Your task to perform on an android device: turn on the 24-hour format for clock Image 0: 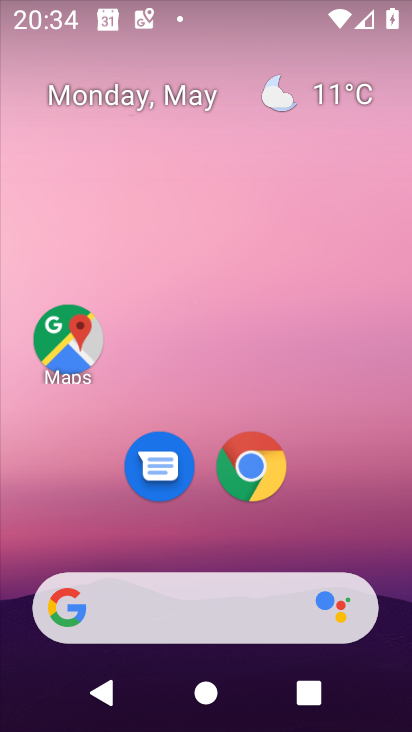
Step 0: drag from (312, 444) to (348, 182)
Your task to perform on an android device: turn on the 24-hour format for clock Image 1: 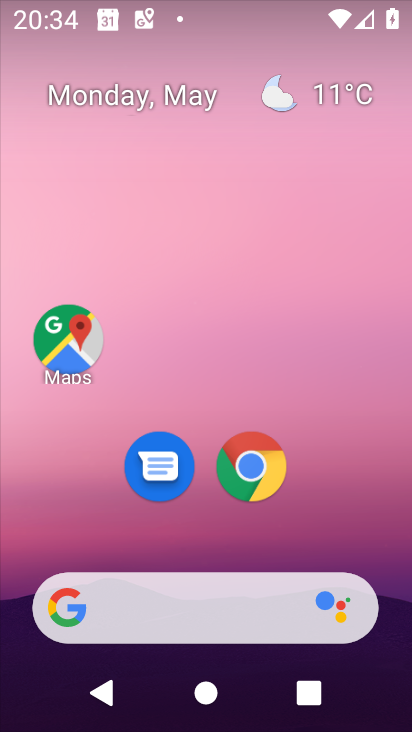
Step 1: drag from (275, 525) to (347, 246)
Your task to perform on an android device: turn on the 24-hour format for clock Image 2: 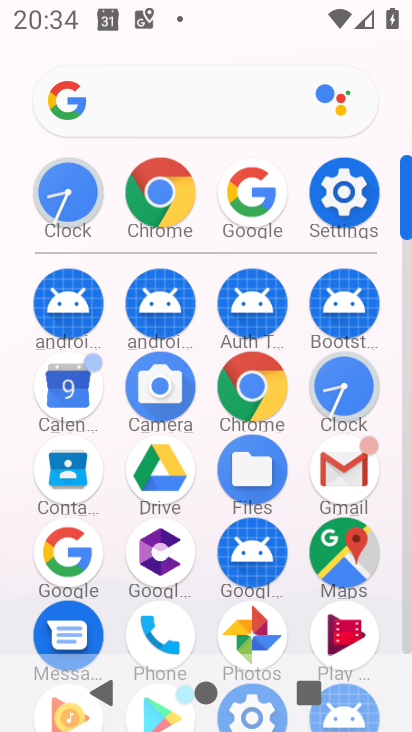
Step 2: click (339, 385)
Your task to perform on an android device: turn on the 24-hour format for clock Image 3: 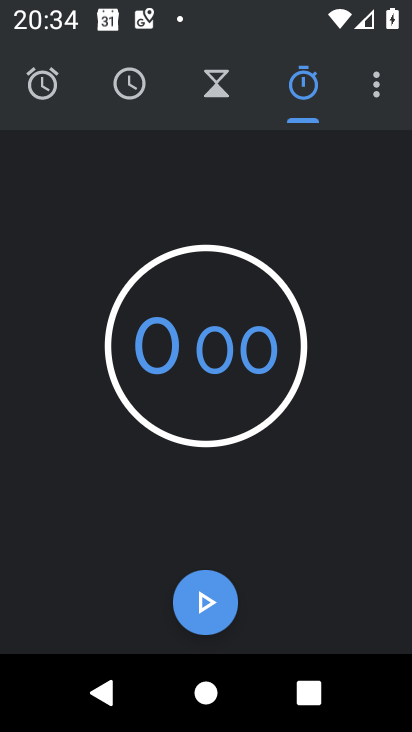
Step 3: click (351, 82)
Your task to perform on an android device: turn on the 24-hour format for clock Image 4: 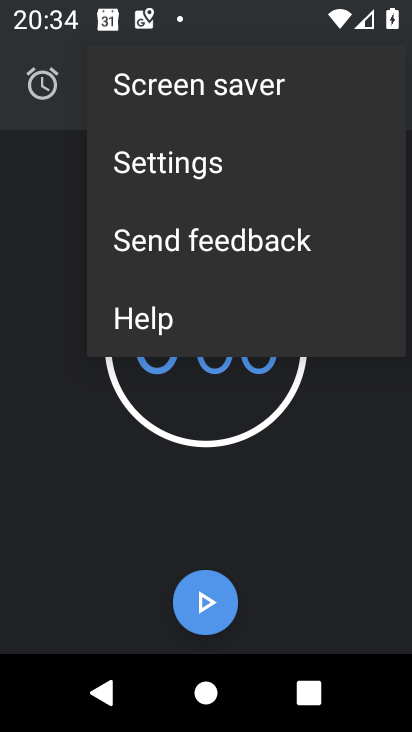
Step 4: click (210, 158)
Your task to perform on an android device: turn on the 24-hour format for clock Image 5: 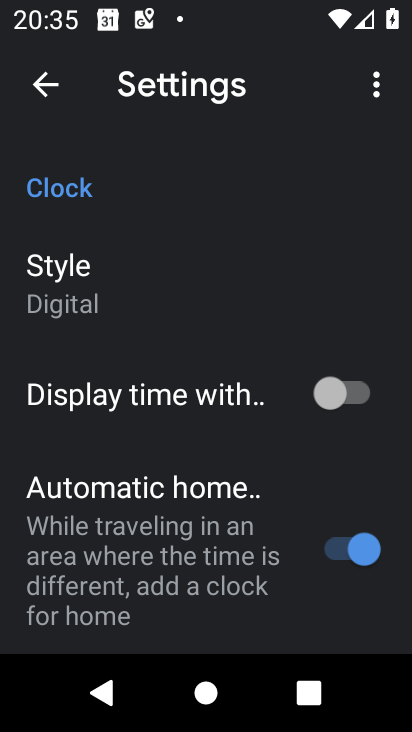
Step 5: drag from (200, 588) to (289, 200)
Your task to perform on an android device: turn on the 24-hour format for clock Image 6: 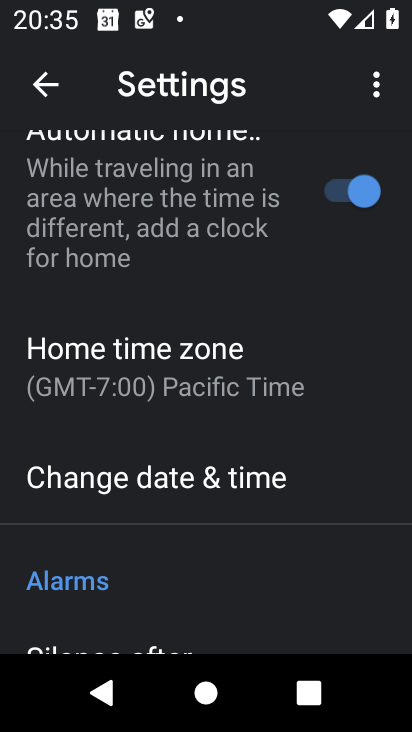
Step 6: drag from (191, 525) to (324, 146)
Your task to perform on an android device: turn on the 24-hour format for clock Image 7: 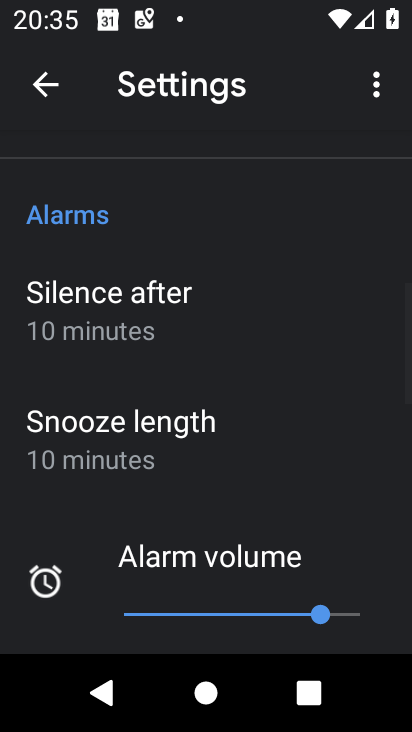
Step 7: drag from (133, 520) to (244, 173)
Your task to perform on an android device: turn on the 24-hour format for clock Image 8: 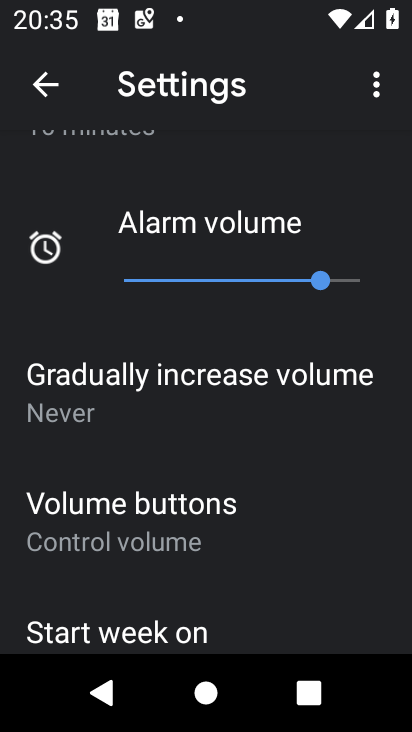
Step 8: drag from (181, 548) to (356, 188)
Your task to perform on an android device: turn on the 24-hour format for clock Image 9: 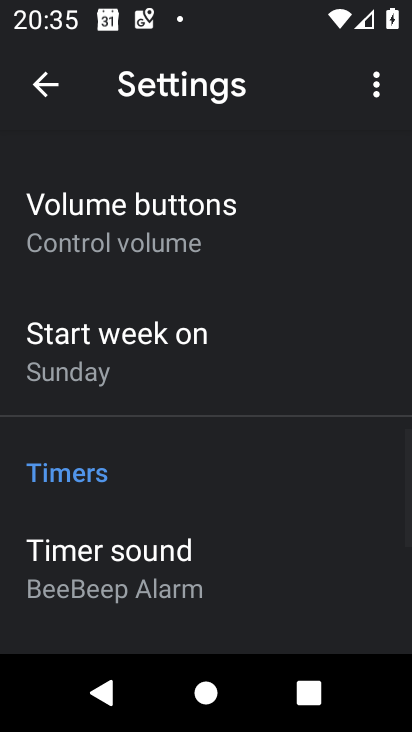
Step 9: drag from (219, 492) to (211, 590)
Your task to perform on an android device: turn on the 24-hour format for clock Image 10: 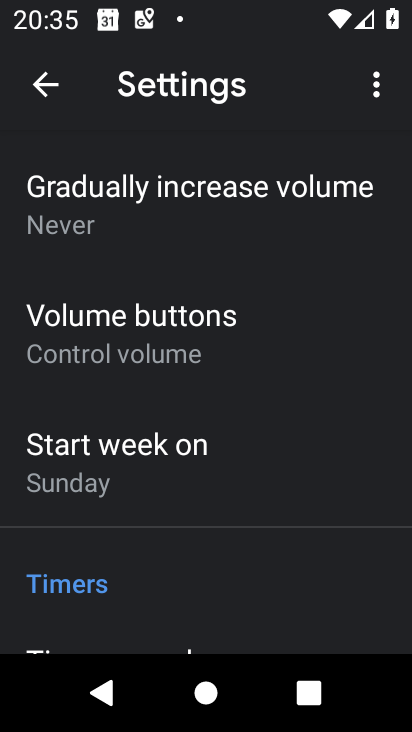
Step 10: drag from (241, 277) to (195, 602)
Your task to perform on an android device: turn on the 24-hour format for clock Image 11: 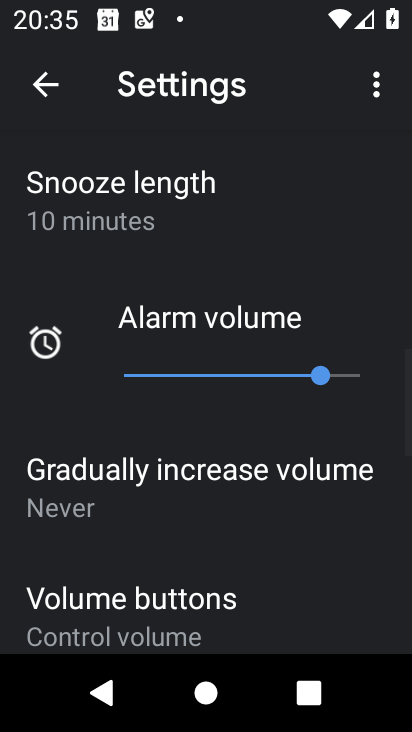
Step 11: drag from (254, 190) to (143, 622)
Your task to perform on an android device: turn on the 24-hour format for clock Image 12: 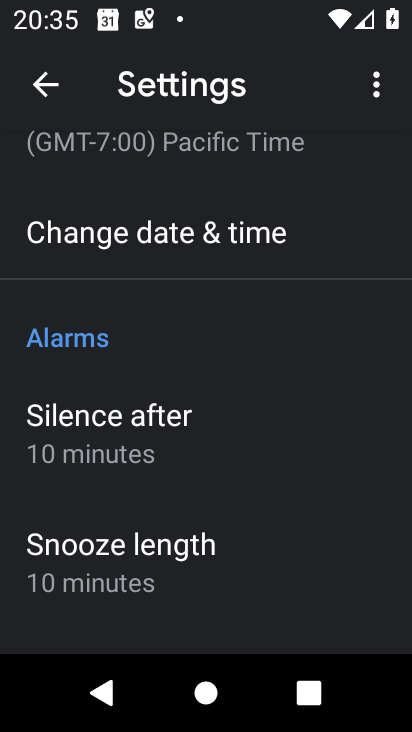
Step 12: click (202, 217)
Your task to perform on an android device: turn on the 24-hour format for clock Image 13: 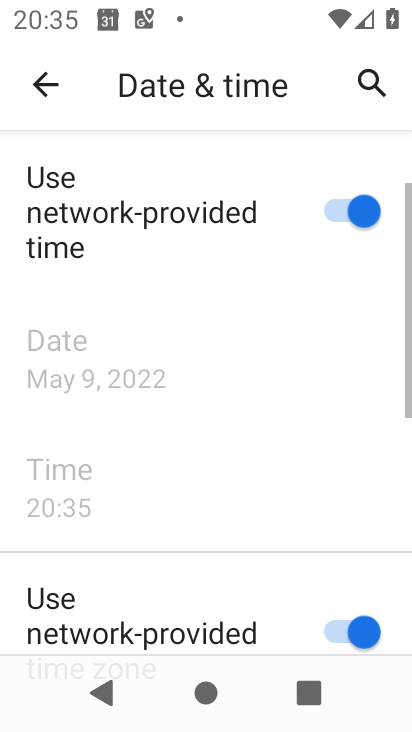
Step 13: task complete